Your task to perform on an android device: Show me the best 1080p monitor on Target.com Image 0: 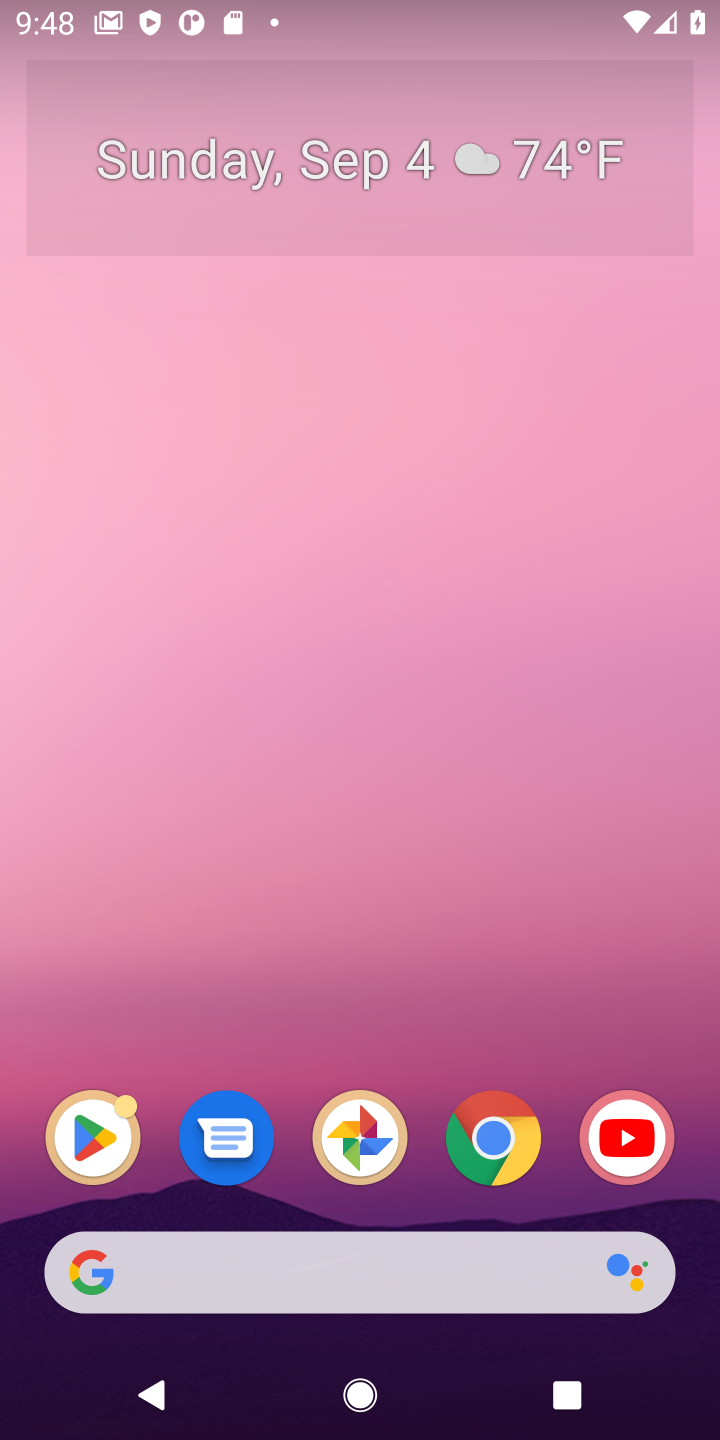
Step 0: click (499, 1194)
Your task to perform on an android device: Show me the best 1080p monitor on Target.com Image 1: 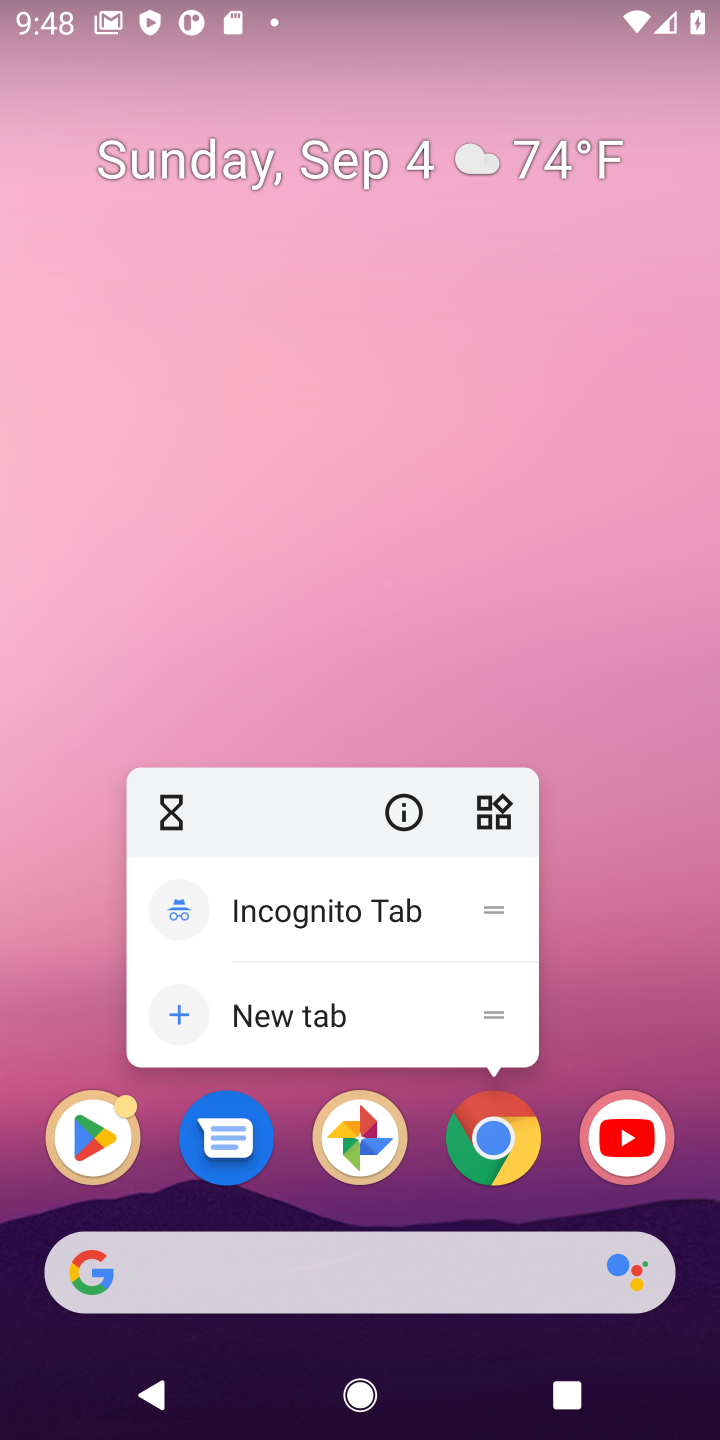
Step 1: click (509, 1110)
Your task to perform on an android device: Show me the best 1080p monitor on Target.com Image 2: 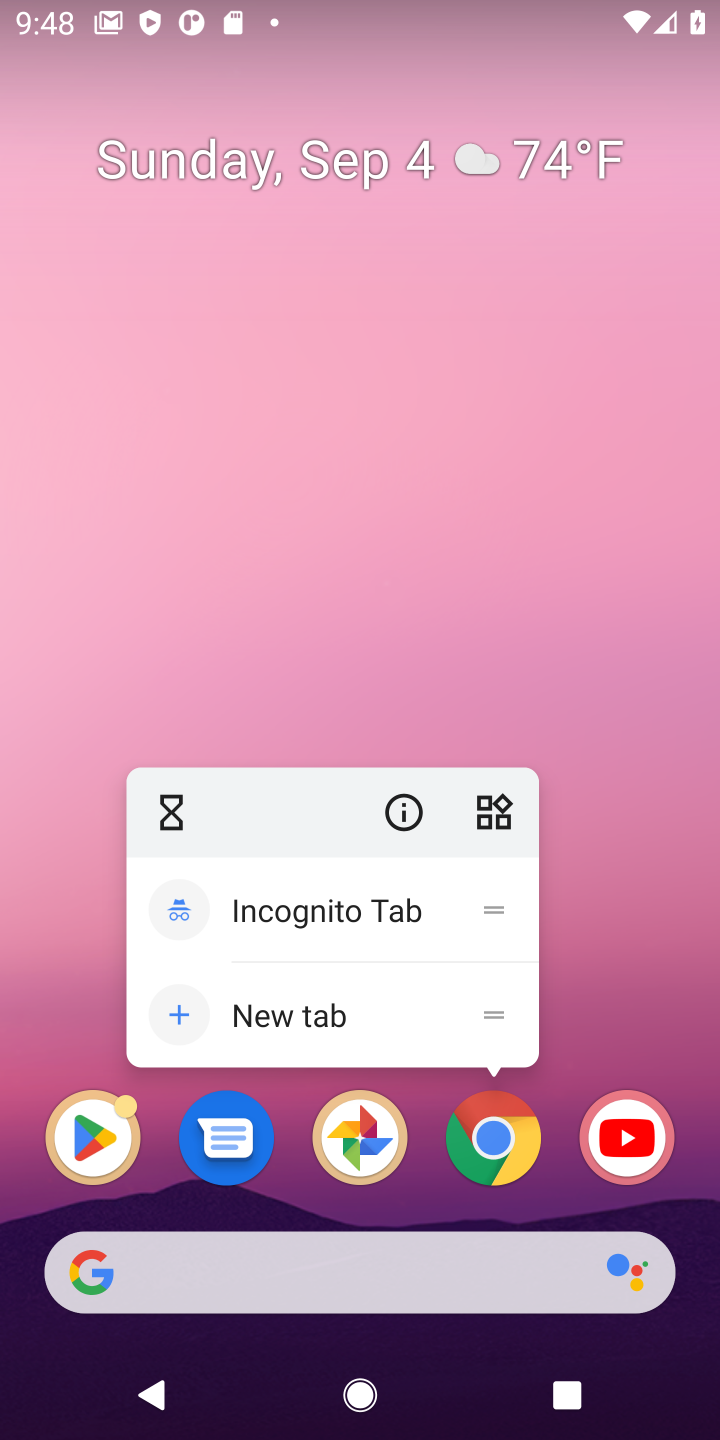
Step 2: click (501, 1146)
Your task to perform on an android device: Show me the best 1080p monitor on Target.com Image 3: 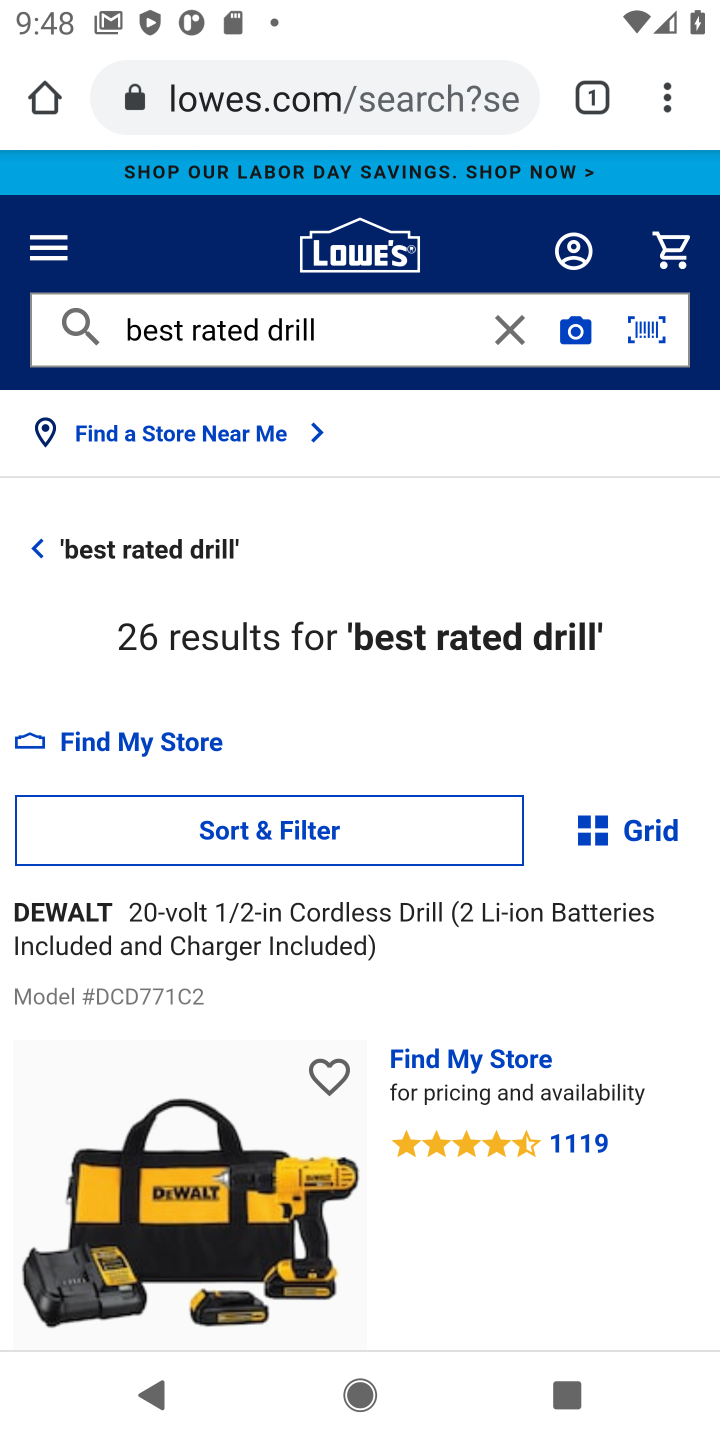
Step 3: click (361, 119)
Your task to perform on an android device: Show me the best 1080p monitor on Target.com Image 4: 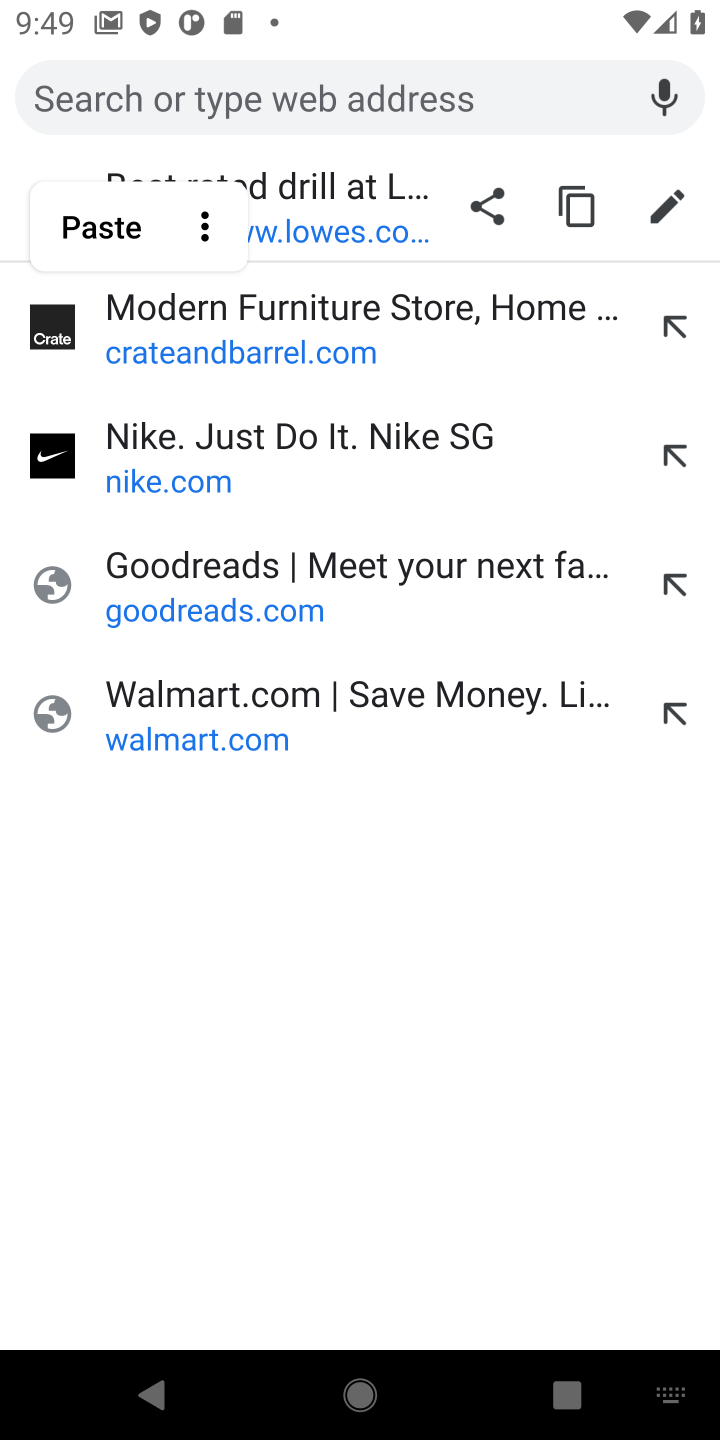
Step 4: type "target.com"
Your task to perform on an android device: Show me the best 1080p monitor on Target.com Image 5: 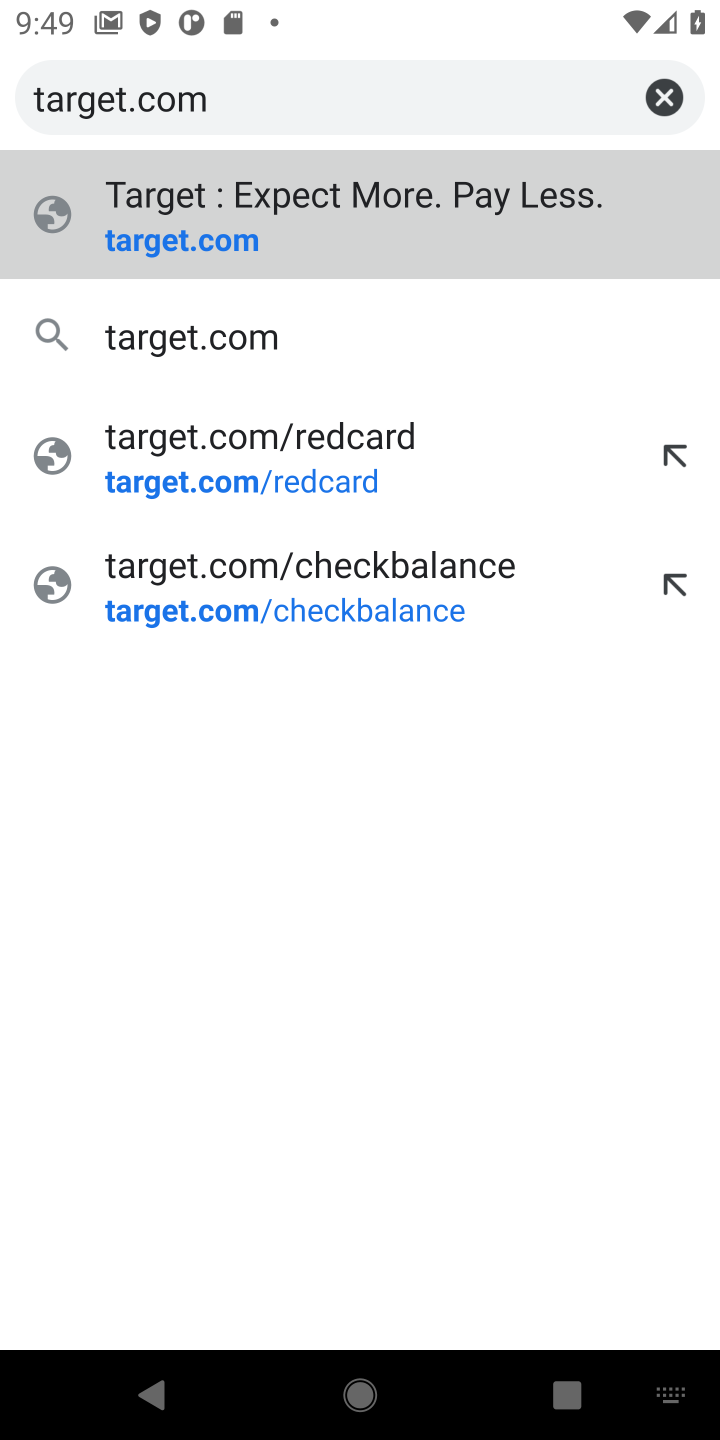
Step 5: click (443, 198)
Your task to perform on an android device: Show me the best 1080p monitor on Target.com Image 6: 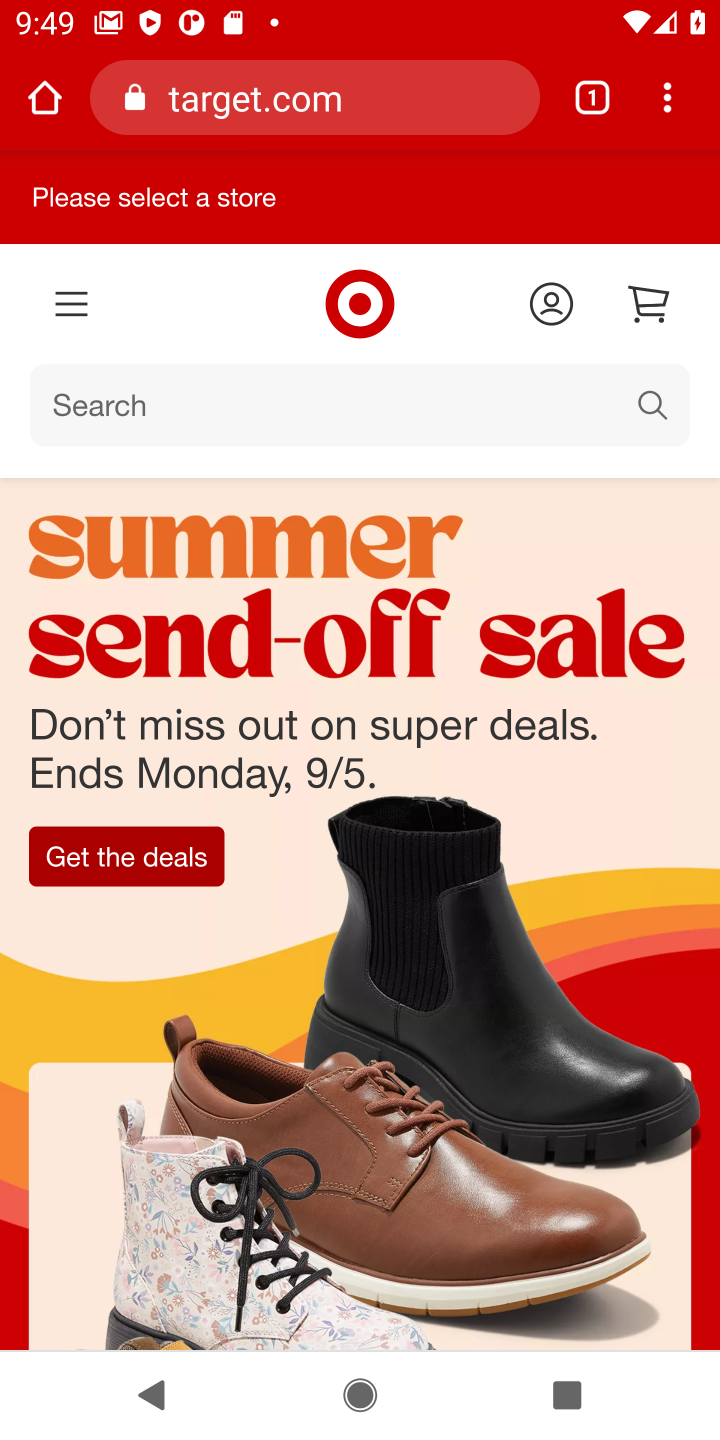
Step 6: click (317, 419)
Your task to perform on an android device: Show me the best 1080p monitor on Target.com Image 7: 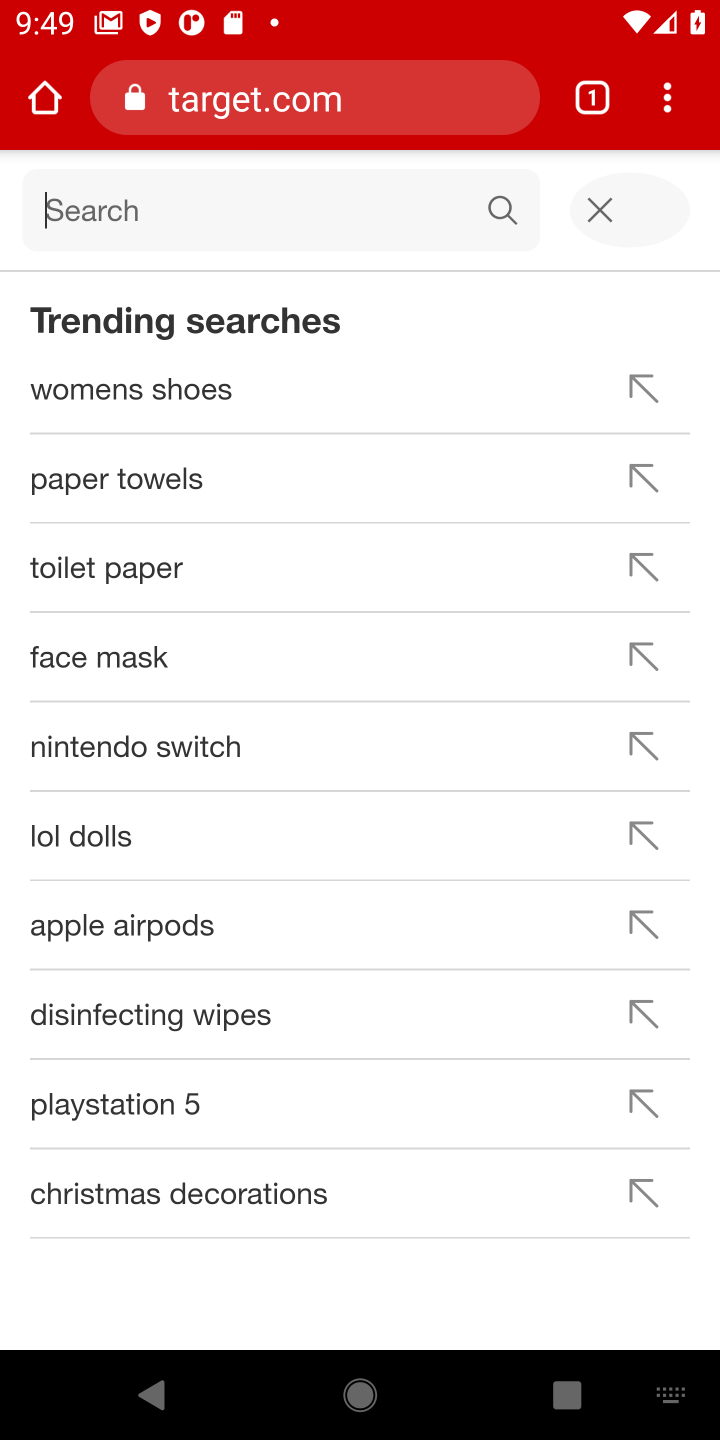
Step 7: type "1080p monitor"
Your task to perform on an android device: Show me the best 1080p monitor on Target.com Image 8: 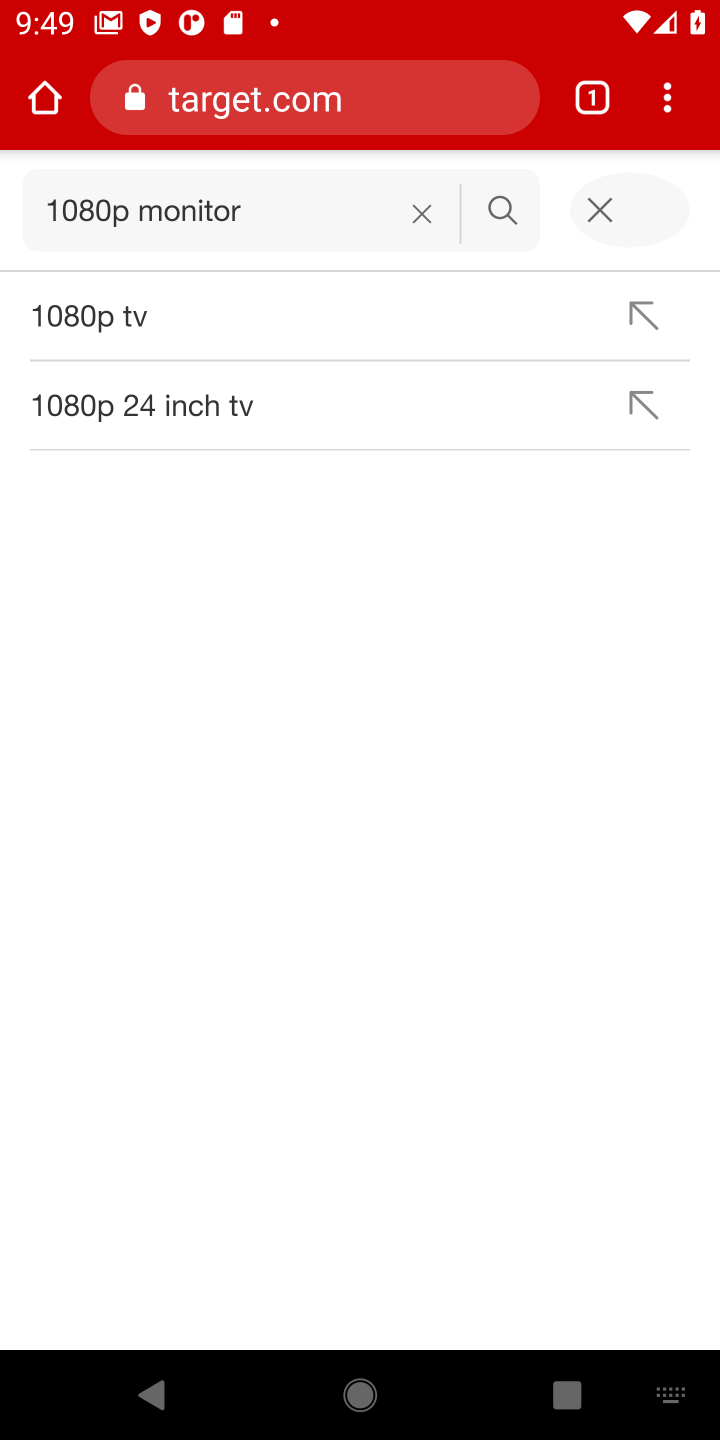
Step 8: press enter
Your task to perform on an android device: Show me the best 1080p monitor on Target.com Image 9: 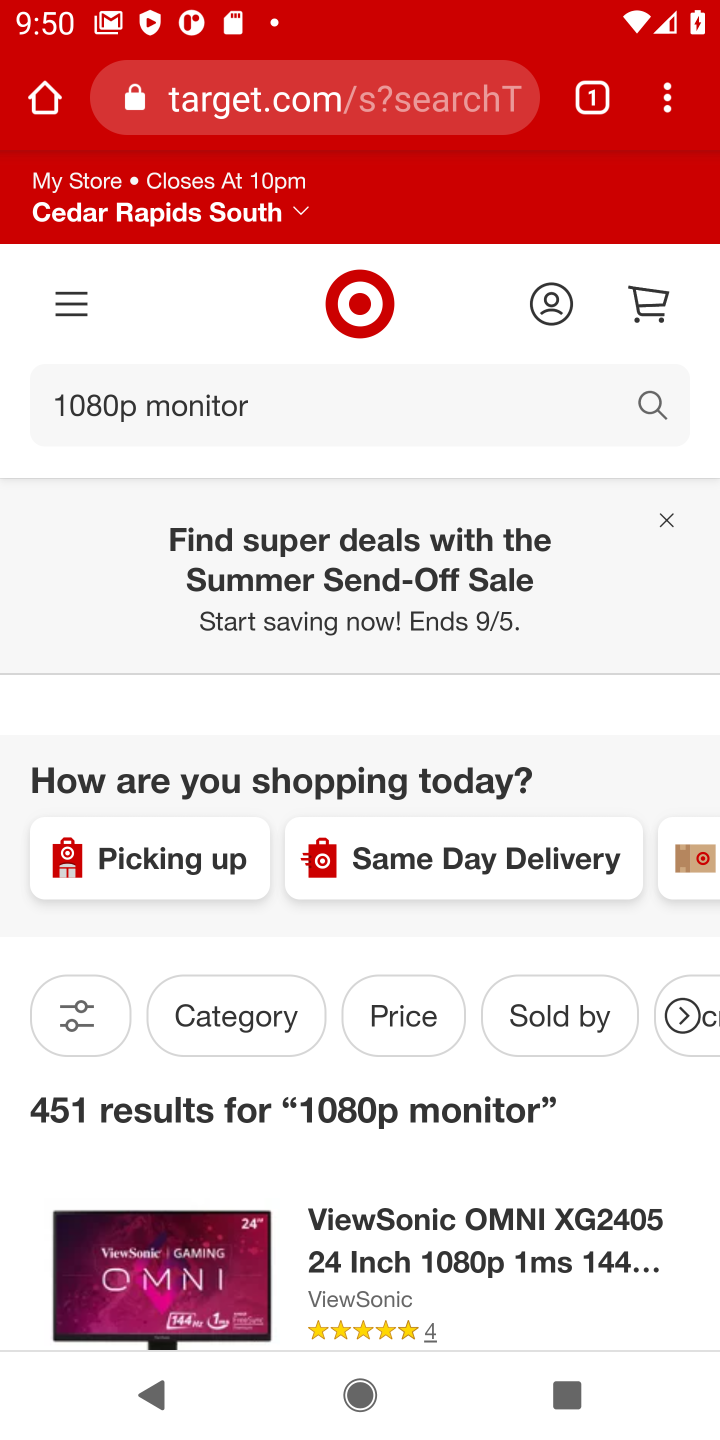
Step 9: task complete